Your task to perform on an android device: turn on priority inbox in the gmail app Image 0: 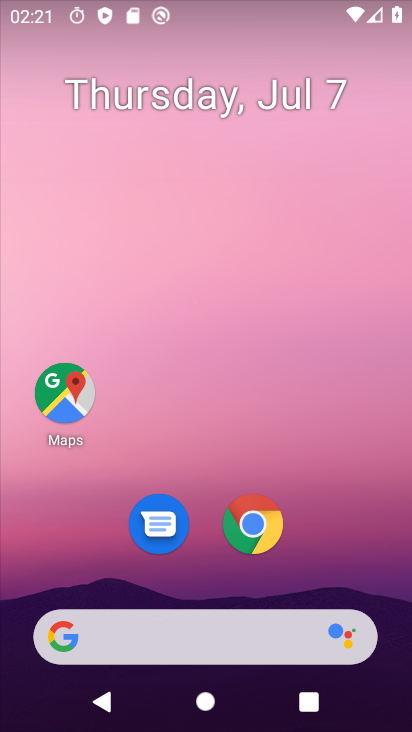
Step 0: drag from (299, 493) to (275, 17)
Your task to perform on an android device: turn on priority inbox in the gmail app Image 1: 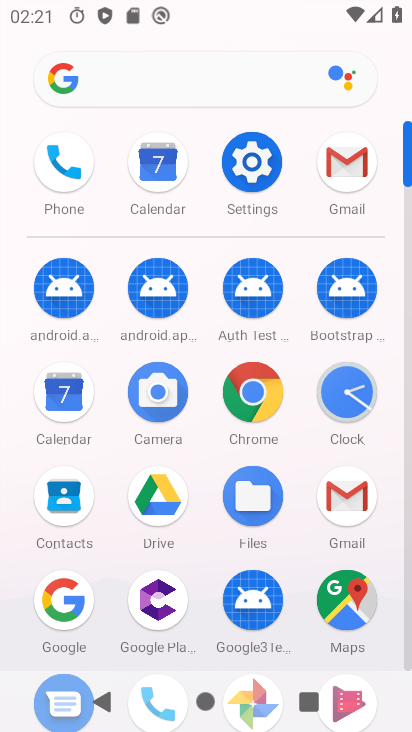
Step 1: click (343, 162)
Your task to perform on an android device: turn on priority inbox in the gmail app Image 2: 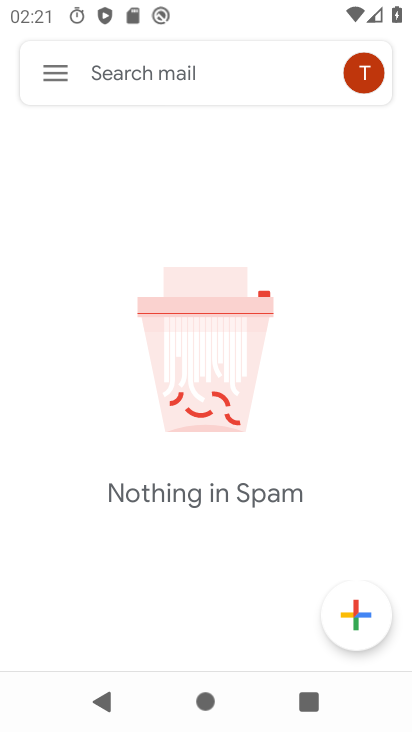
Step 2: click (55, 70)
Your task to perform on an android device: turn on priority inbox in the gmail app Image 3: 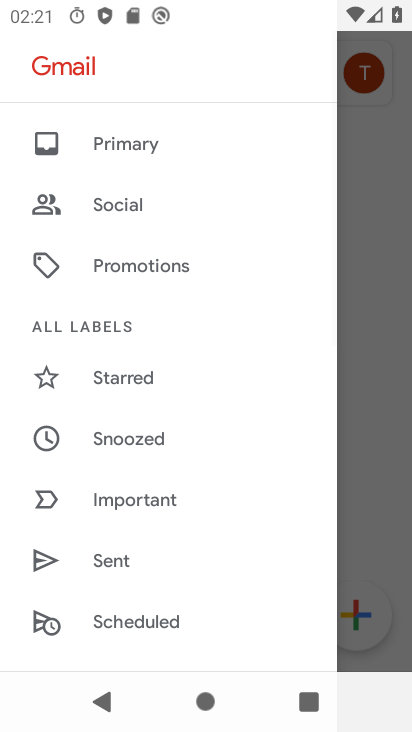
Step 3: drag from (191, 525) to (236, 43)
Your task to perform on an android device: turn on priority inbox in the gmail app Image 4: 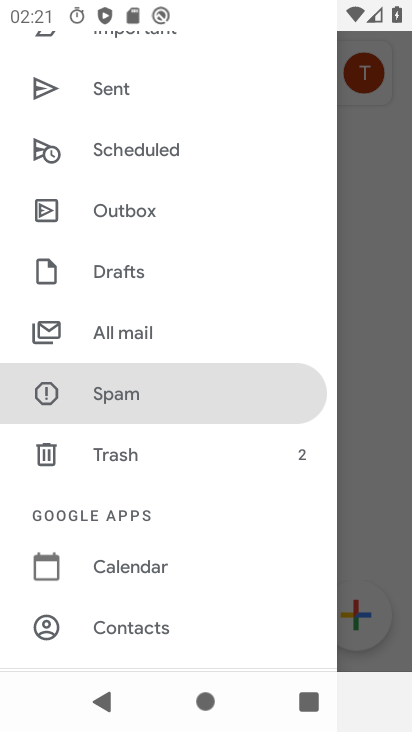
Step 4: drag from (216, 548) to (243, 218)
Your task to perform on an android device: turn on priority inbox in the gmail app Image 5: 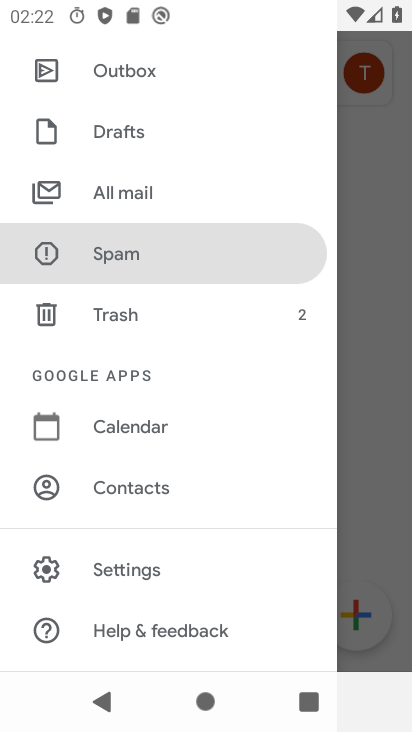
Step 5: click (142, 561)
Your task to perform on an android device: turn on priority inbox in the gmail app Image 6: 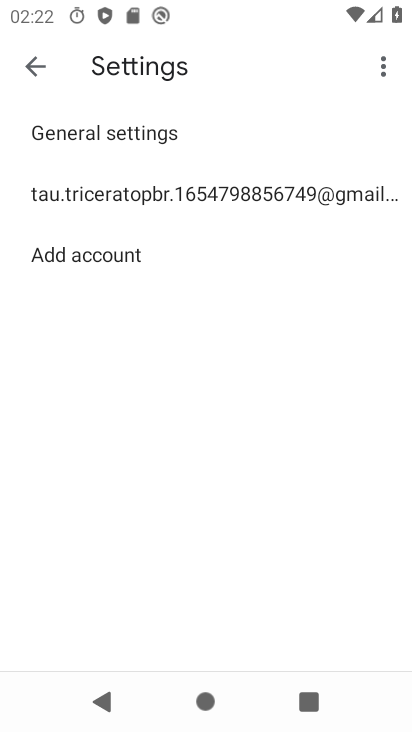
Step 6: click (238, 189)
Your task to perform on an android device: turn on priority inbox in the gmail app Image 7: 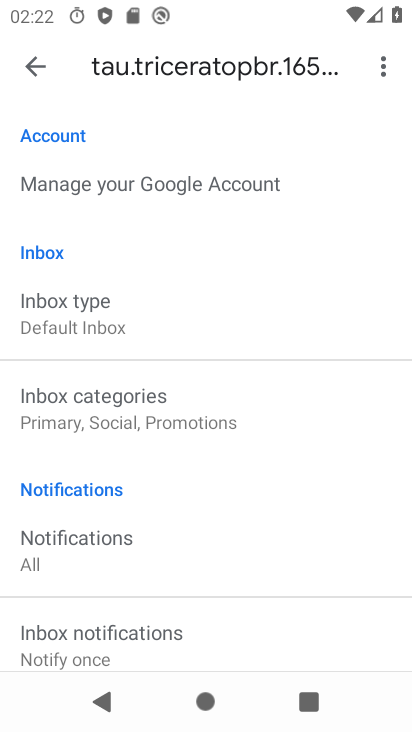
Step 7: click (101, 327)
Your task to perform on an android device: turn on priority inbox in the gmail app Image 8: 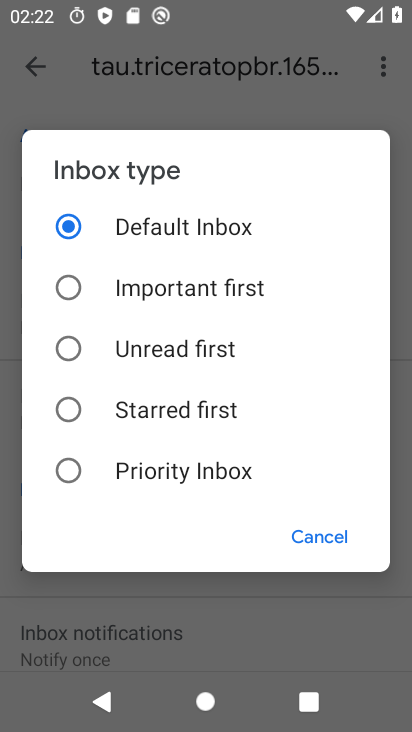
Step 8: click (73, 482)
Your task to perform on an android device: turn on priority inbox in the gmail app Image 9: 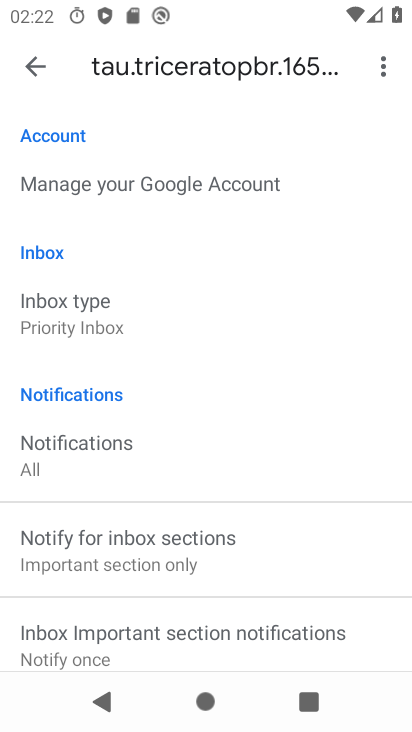
Step 9: task complete